Your task to perform on an android device: star an email in the gmail app Image 0: 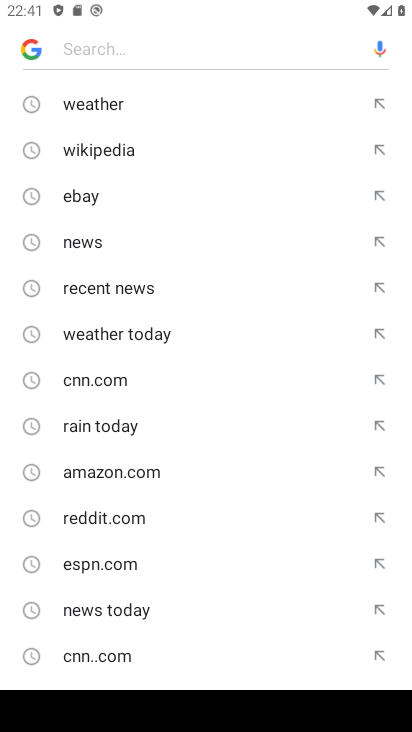
Step 0: press home button
Your task to perform on an android device: star an email in the gmail app Image 1: 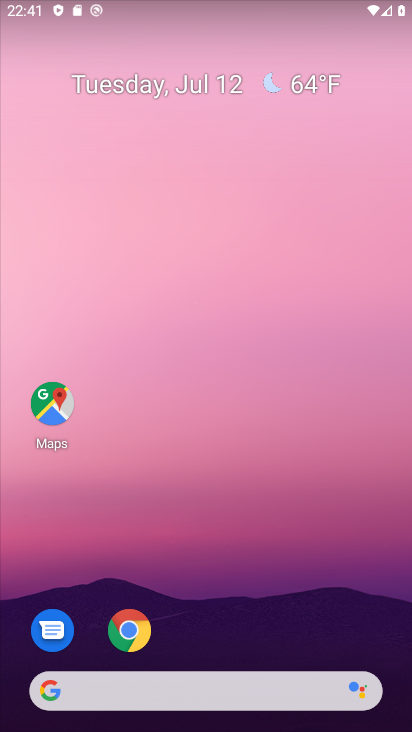
Step 1: drag from (342, 607) to (371, 152)
Your task to perform on an android device: star an email in the gmail app Image 2: 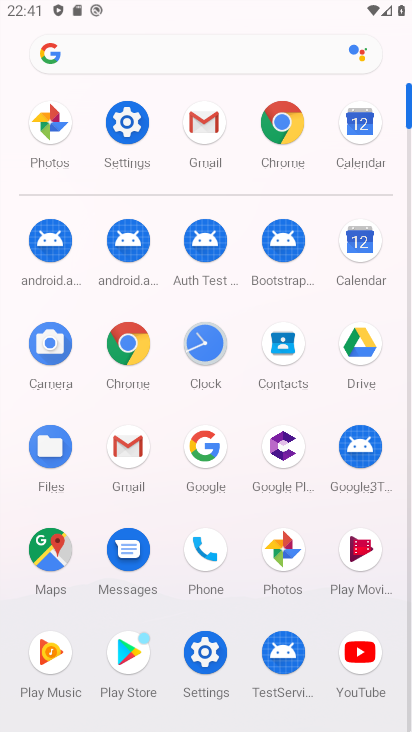
Step 2: click (127, 453)
Your task to perform on an android device: star an email in the gmail app Image 3: 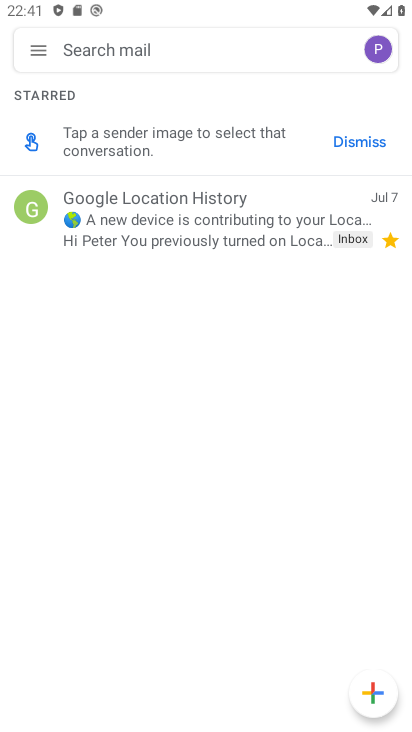
Step 3: click (42, 54)
Your task to perform on an android device: star an email in the gmail app Image 4: 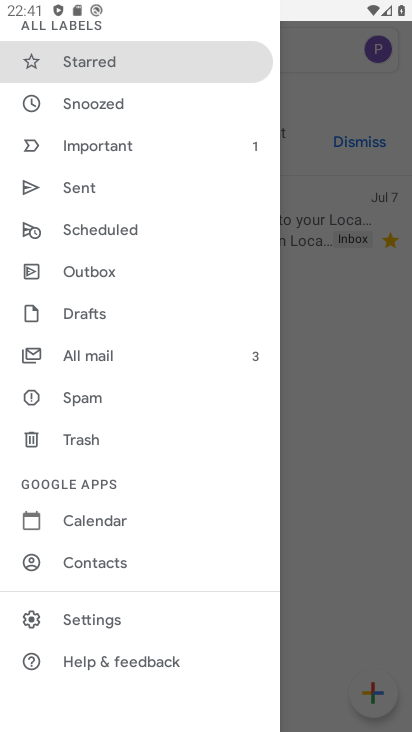
Step 4: click (135, 349)
Your task to perform on an android device: star an email in the gmail app Image 5: 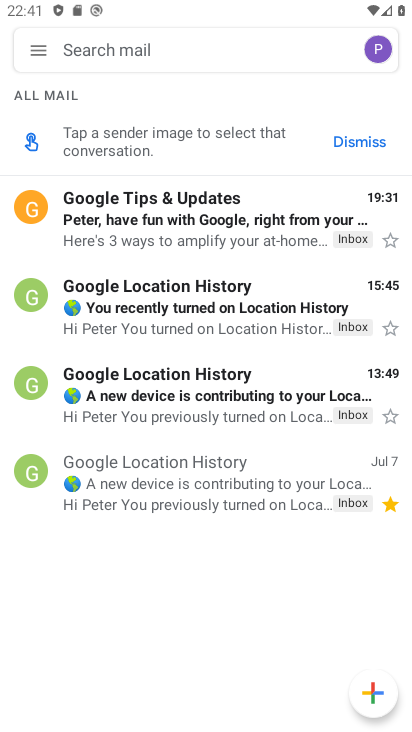
Step 5: click (383, 419)
Your task to perform on an android device: star an email in the gmail app Image 6: 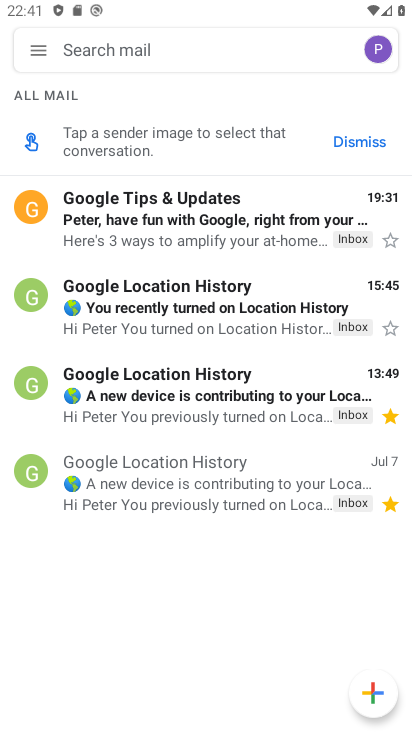
Step 6: task complete